Your task to perform on an android device: Do I have any events this weekend? Image 0: 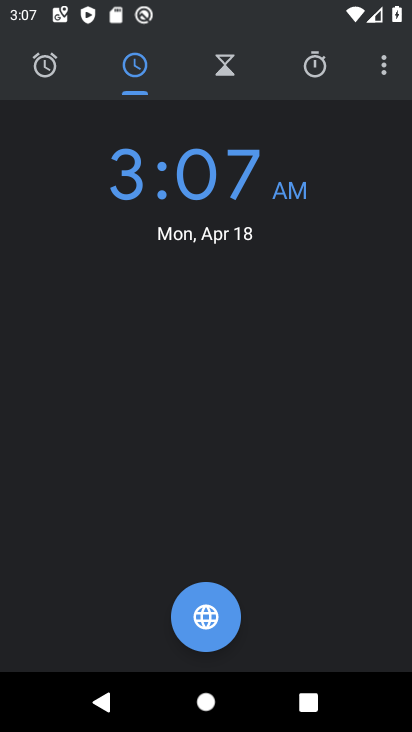
Step 0: press home button
Your task to perform on an android device: Do I have any events this weekend? Image 1: 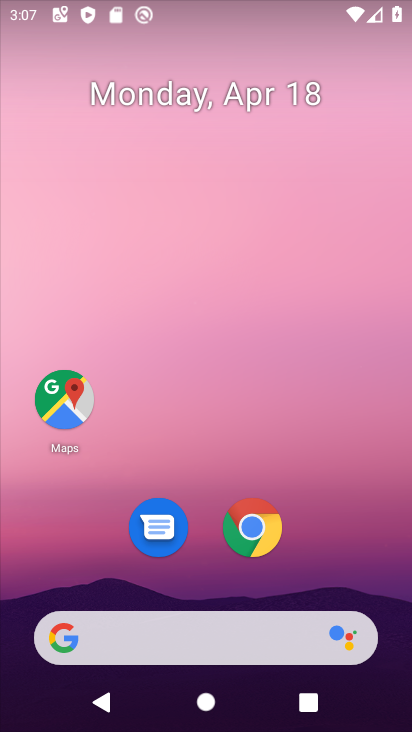
Step 1: drag from (204, 612) to (235, 174)
Your task to perform on an android device: Do I have any events this weekend? Image 2: 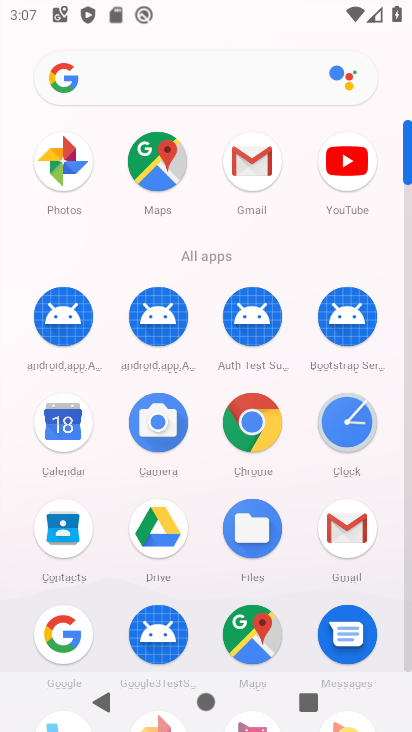
Step 2: click (54, 438)
Your task to perform on an android device: Do I have any events this weekend? Image 3: 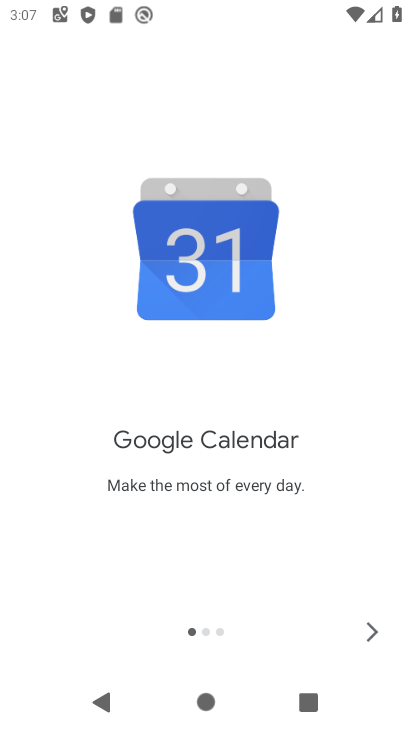
Step 3: click (369, 628)
Your task to perform on an android device: Do I have any events this weekend? Image 4: 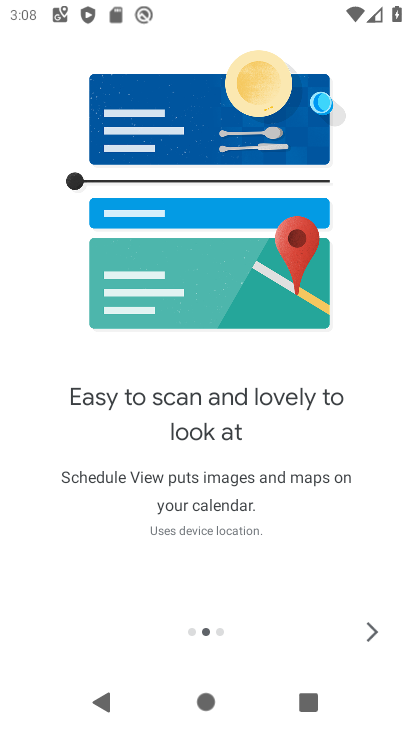
Step 4: click (369, 628)
Your task to perform on an android device: Do I have any events this weekend? Image 5: 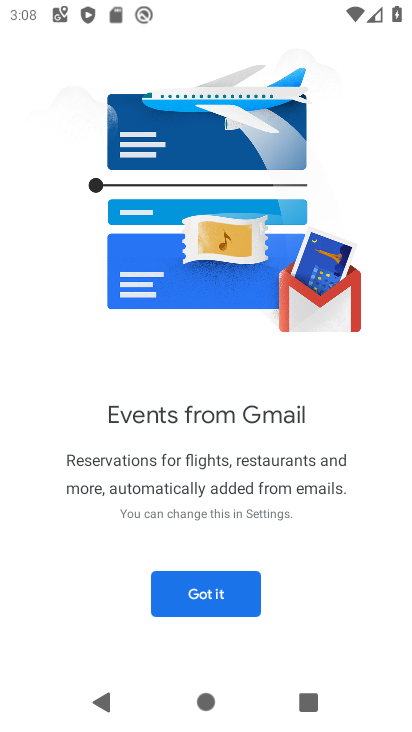
Step 5: click (187, 577)
Your task to perform on an android device: Do I have any events this weekend? Image 6: 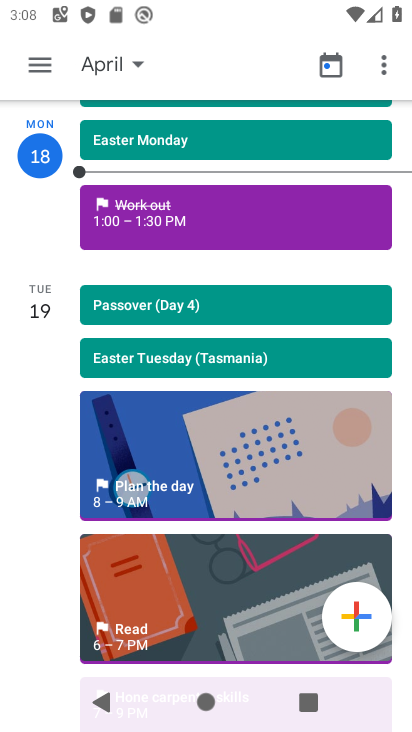
Step 6: click (50, 74)
Your task to perform on an android device: Do I have any events this weekend? Image 7: 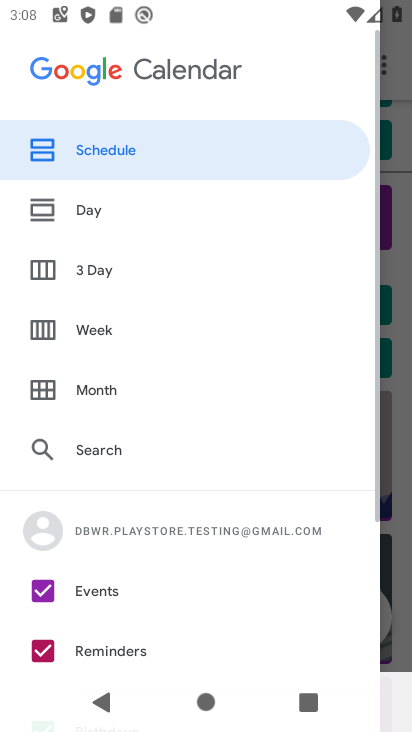
Step 7: click (101, 333)
Your task to perform on an android device: Do I have any events this weekend? Image 8: 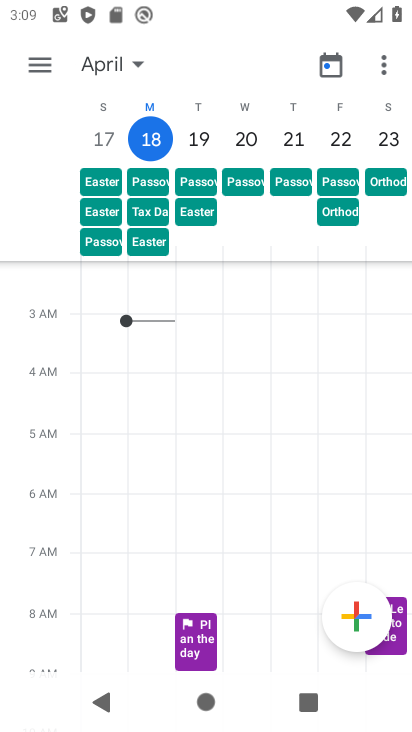
Step 8: task complete